Your task to perform on an android device: open a new tab in the chrome app Image 0: 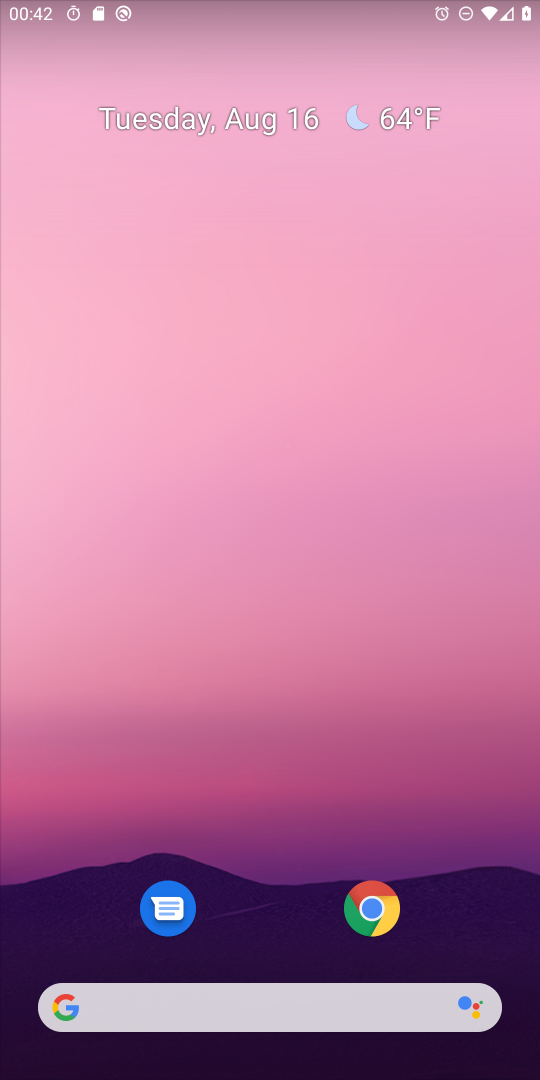
Step 0: click (361, 909)
Your task to perform on an android device: open a new tab in the chrome app Image 1: 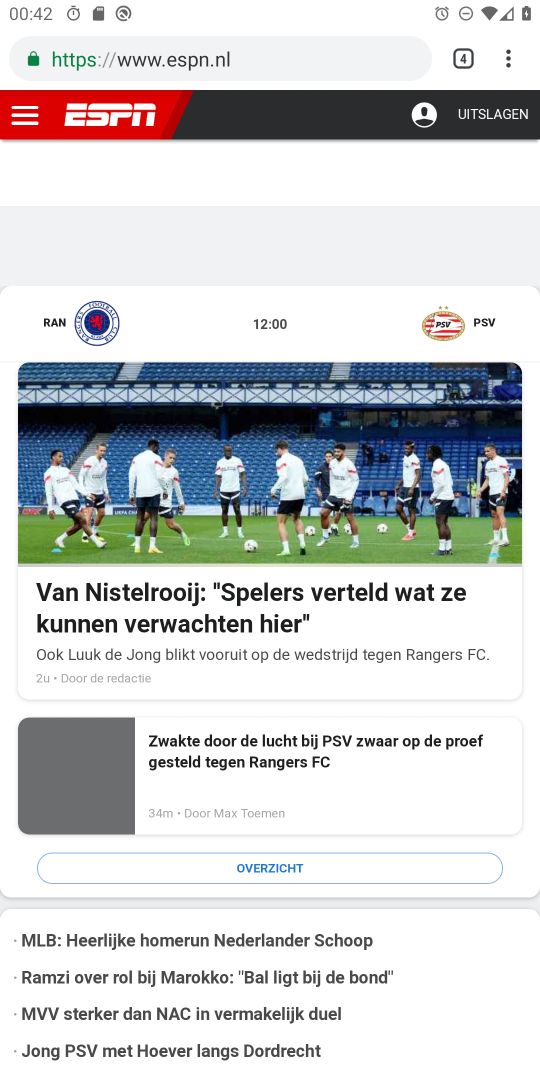
Step 1: click (462, 65)
Your task to perform on an android device: open a new tab in the chrome app Image 2: 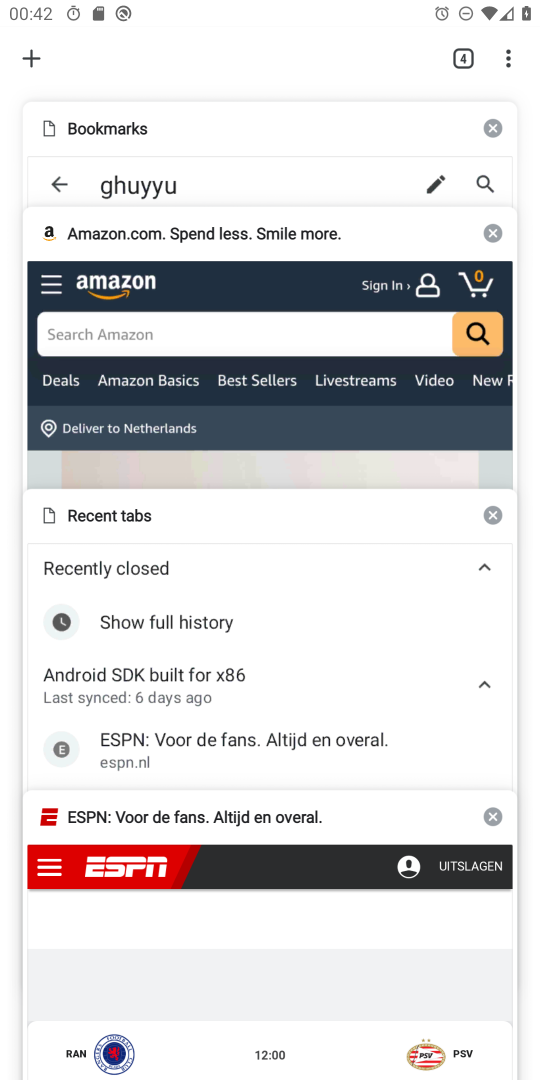
Step 2: click (34, 64)
Your task to perform on an android device: open a new tab in the chrome app Image 3: 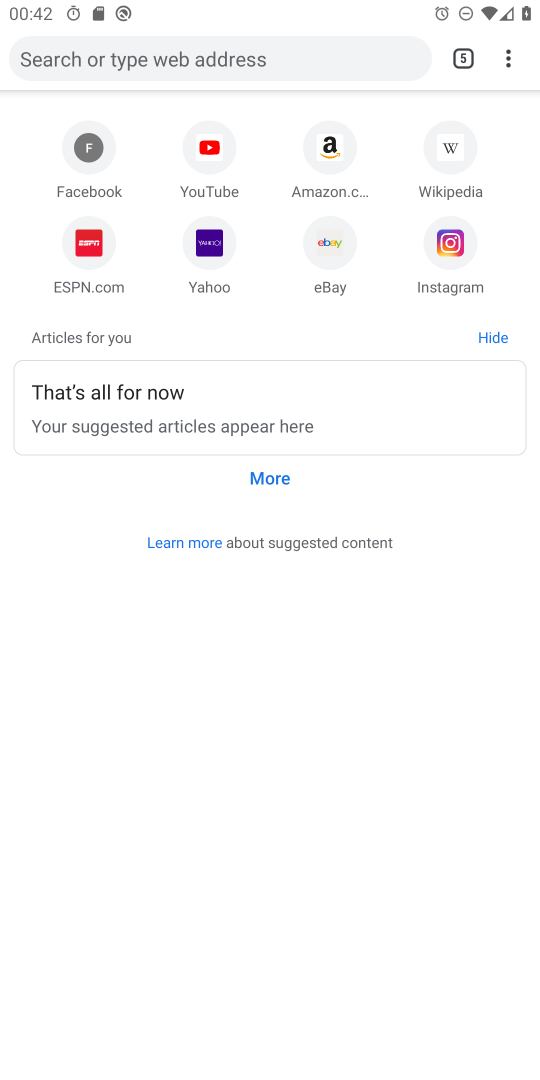
Step 3: task complete